Your task to perform on an android device: toggle location history Image 0: 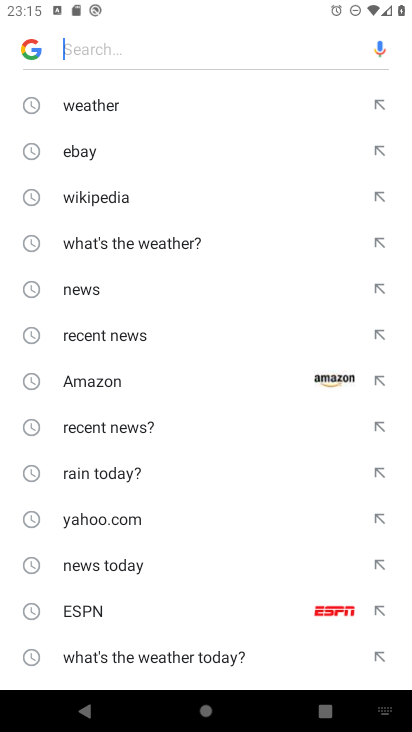
Step 0: press home button
Your task to perform on an android device: toggle location history Image 1: 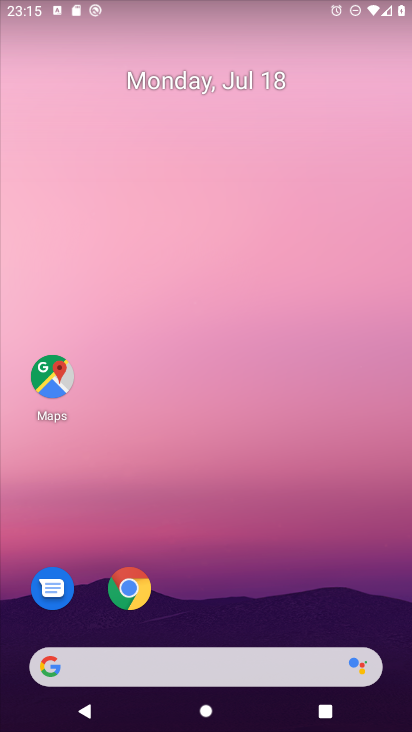
Step 1: click (49, 367)
Your task to perform on an android device: toggle location history Image 2: 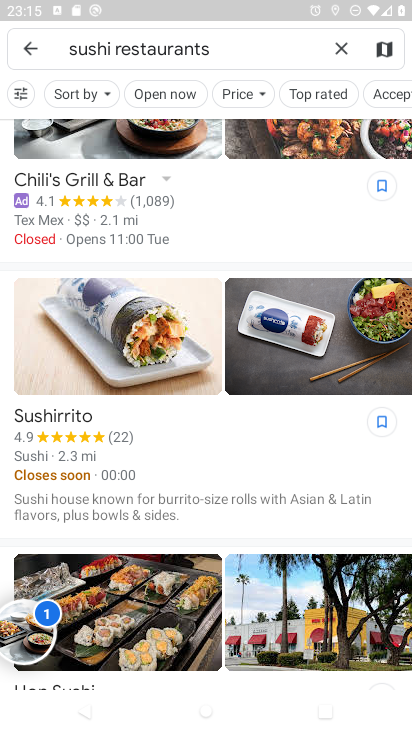
Step 2: click (341, 46)
Your task to perform on an android device: toggle location history Image 3: 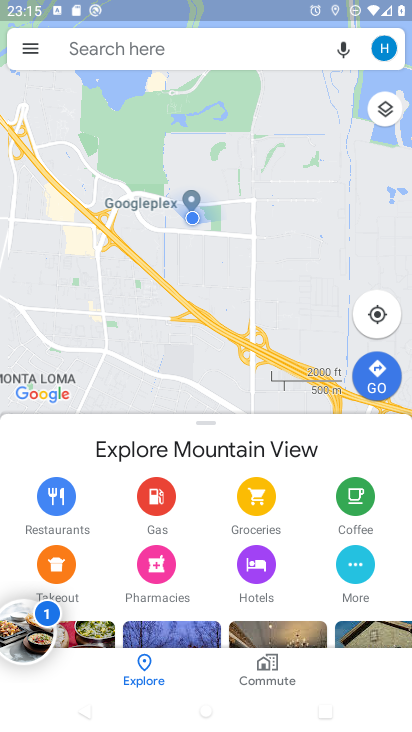
Step 3: click (28, 45)
Your task to perform on an android device: toggle location history Image 4: 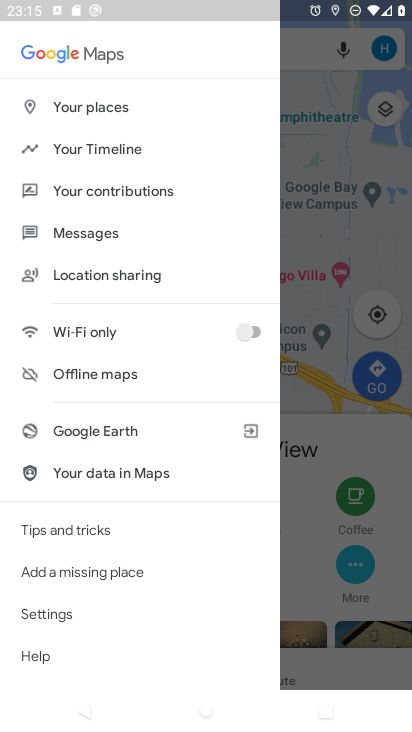
Step 4: click (54, 611)
Your task to perform on an android device: toggle location history Image 5: 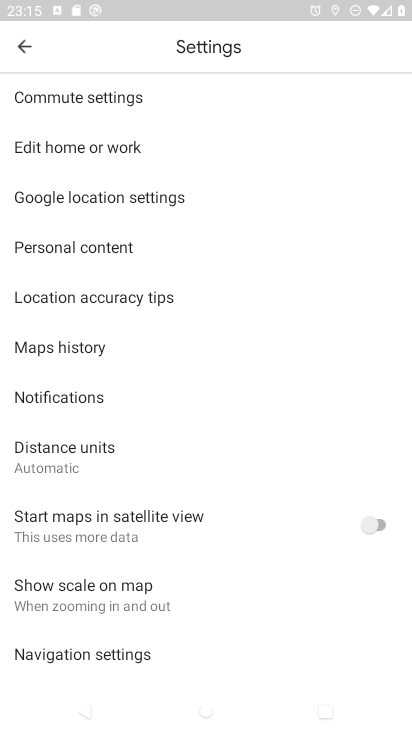
Step 5: click (62, 252)
Your task to perform on an android device: toggle location history Image 6: 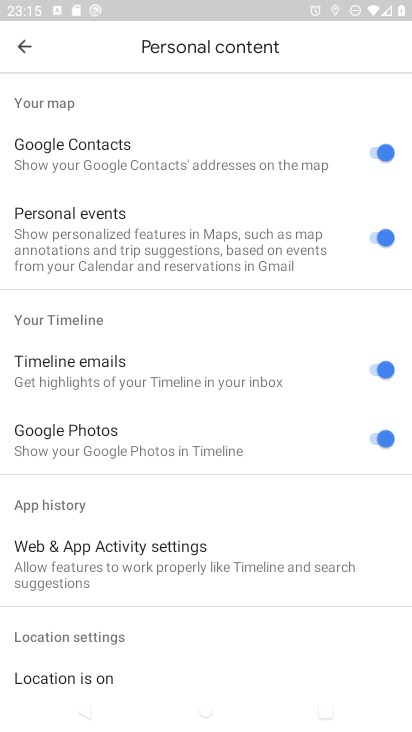
Step 6: drag from (227, 588) to (217, 143)
Your task to perform on an android device: toggle location history Image 7: 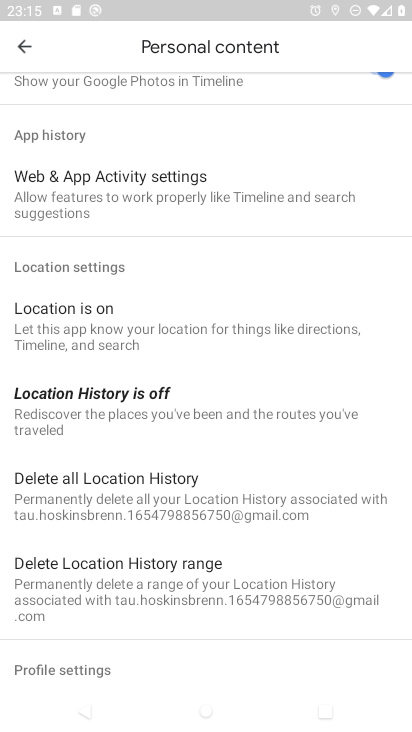
Step 7: click (90, 410)
Your task to perform on an android device: toggle location history Image 8: 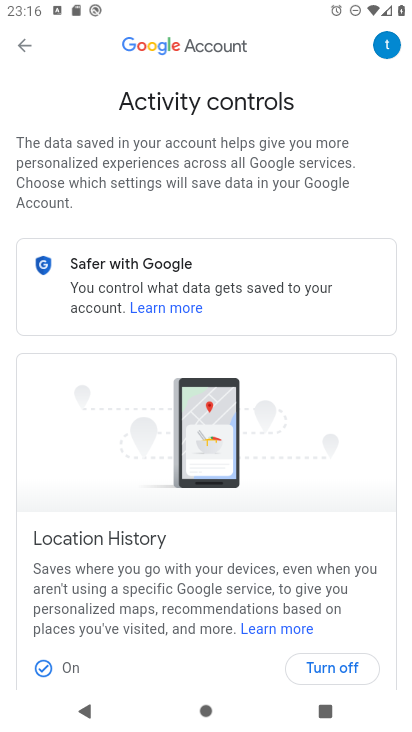
Step 8: drag from (310, 581) to (289, 200)
Your task to perform on an android device: toggle location history Image 9: 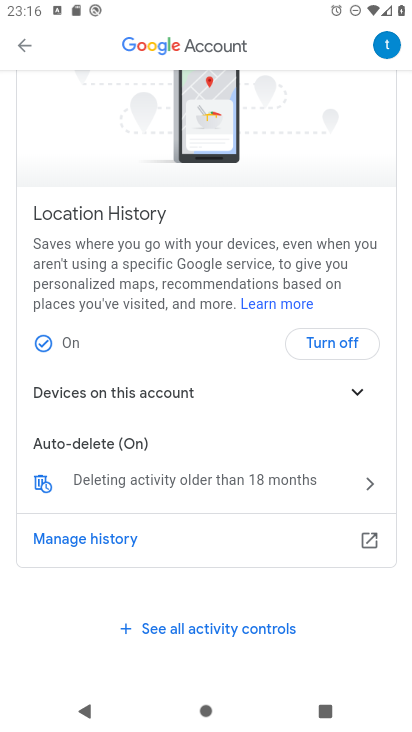
Step 9: click (338, 341)
Your task to perform on an android device: toggle location history Image 10: 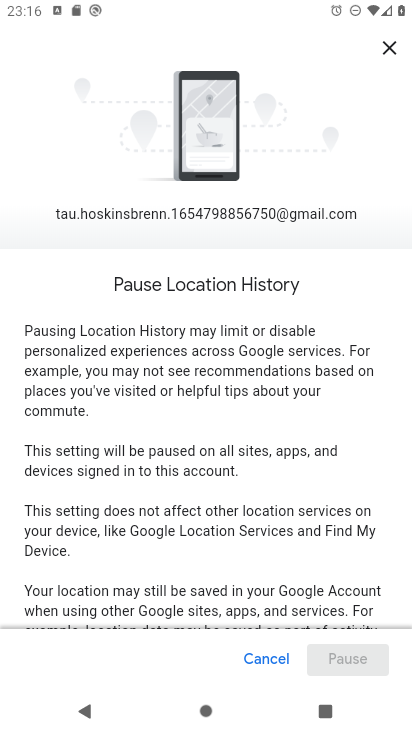
Step 10: drag from (266, 580) to (269, 145)
Your task to perform on an android device: toggle location history Image 11: 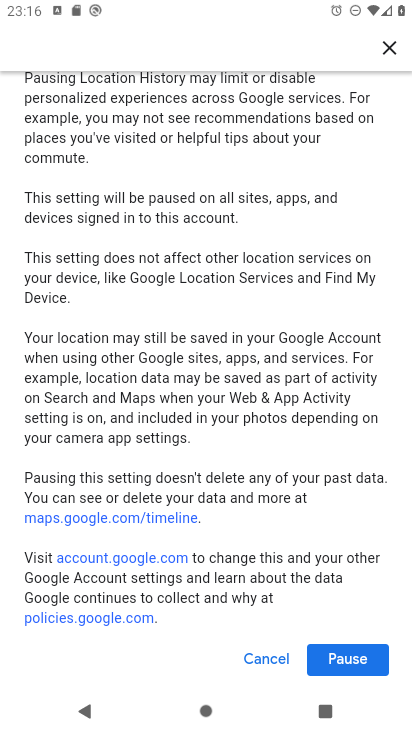
Step 11: click (346, 654)
Your task to perform on an android device: toggle location history Image 12: 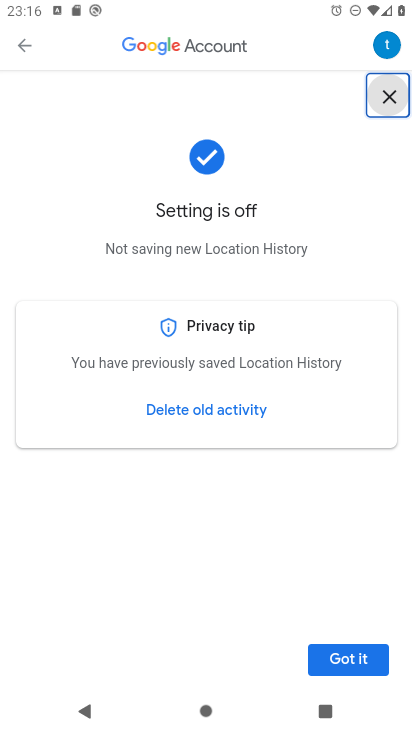
Step 12: click (344, 660)
Your task to perform on an android device: toggle location history Image 13: 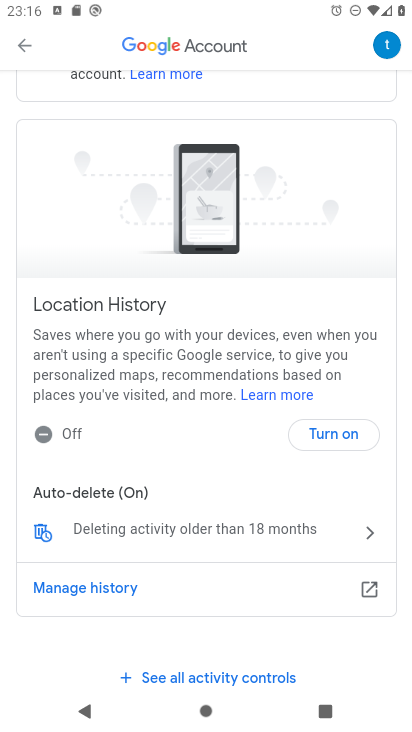
Step 13: task complete